Your task to perform on an android device: Go to network settings Image 0: 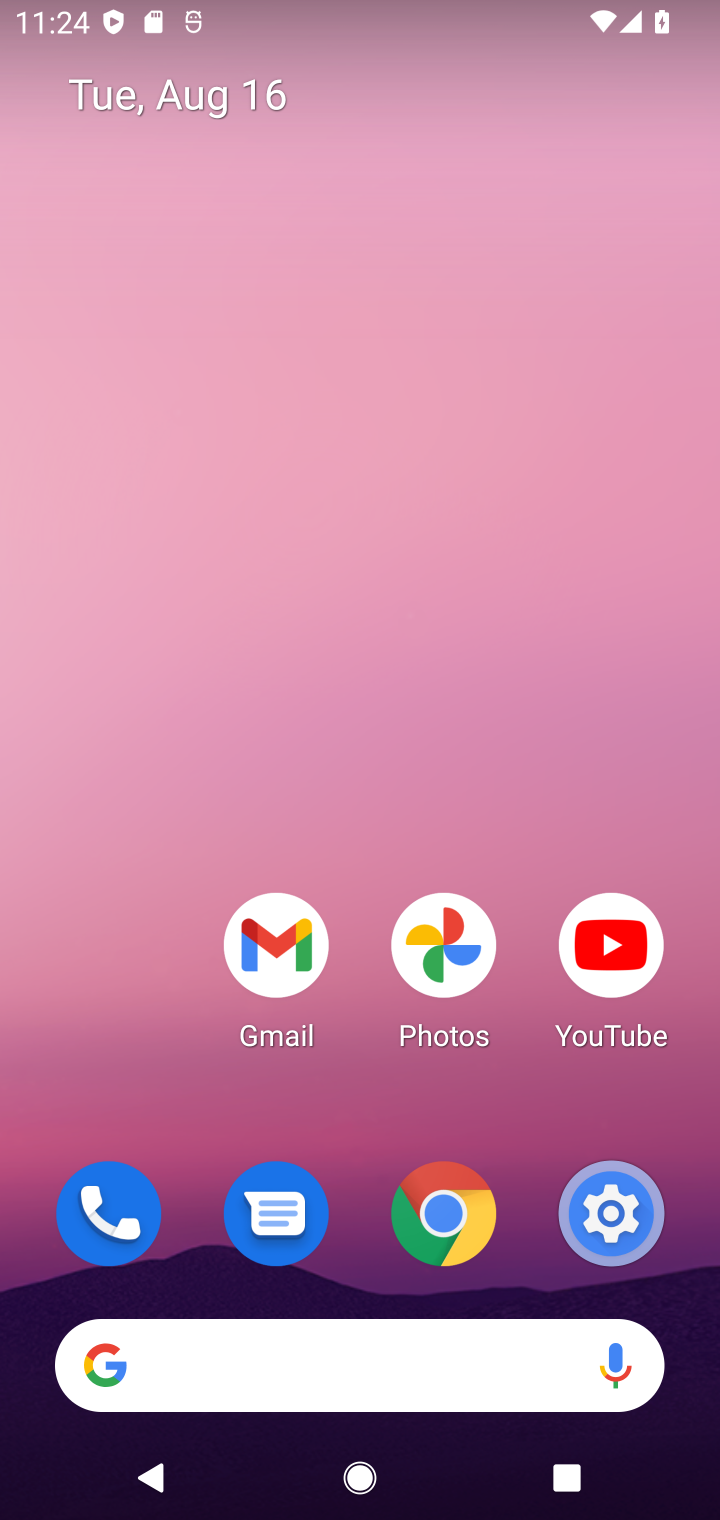
Step 0: click (495, 150)
Your task to perform on an android device: Go to network settings Image 1: 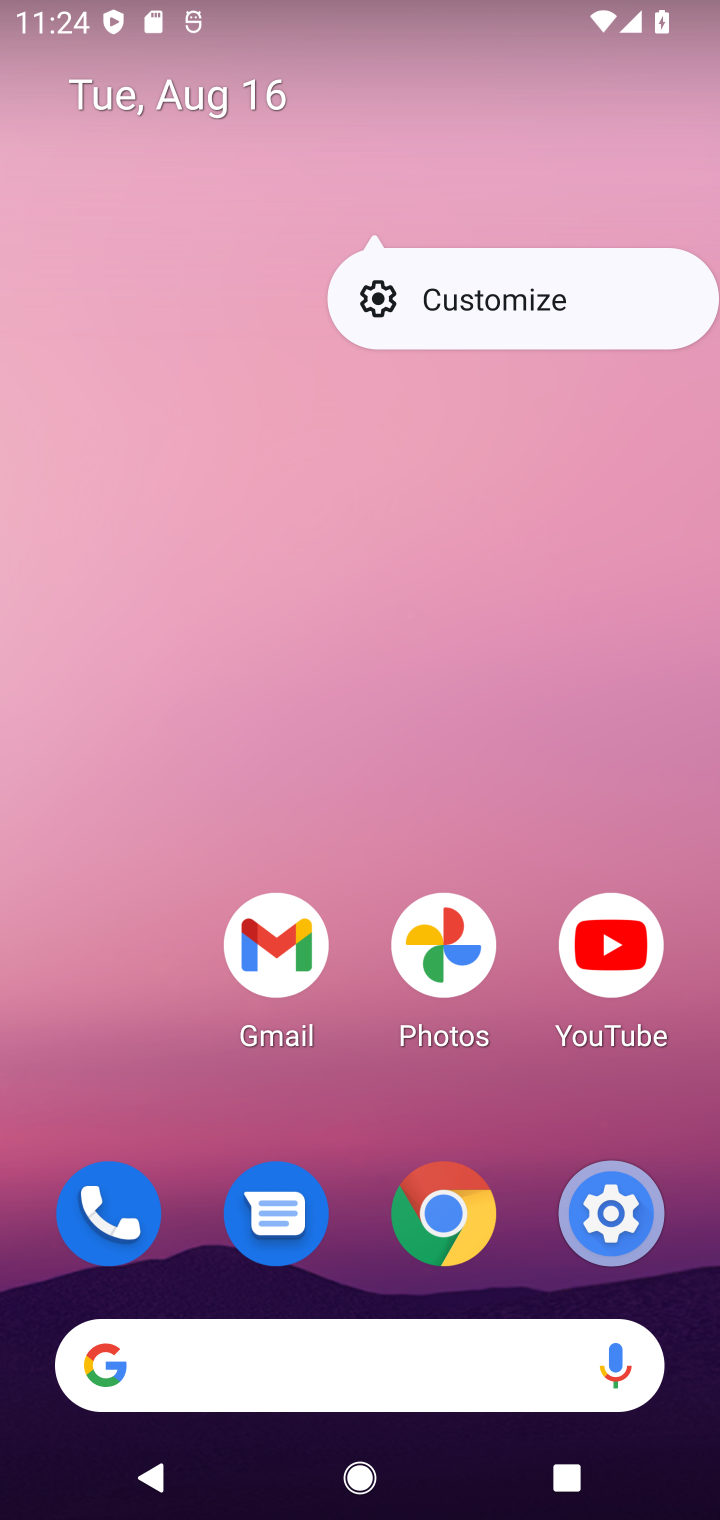
Step 1: drag from (387, 937) to (92, 18)
Your task to perform on an android device: Go to network settings Image 2: 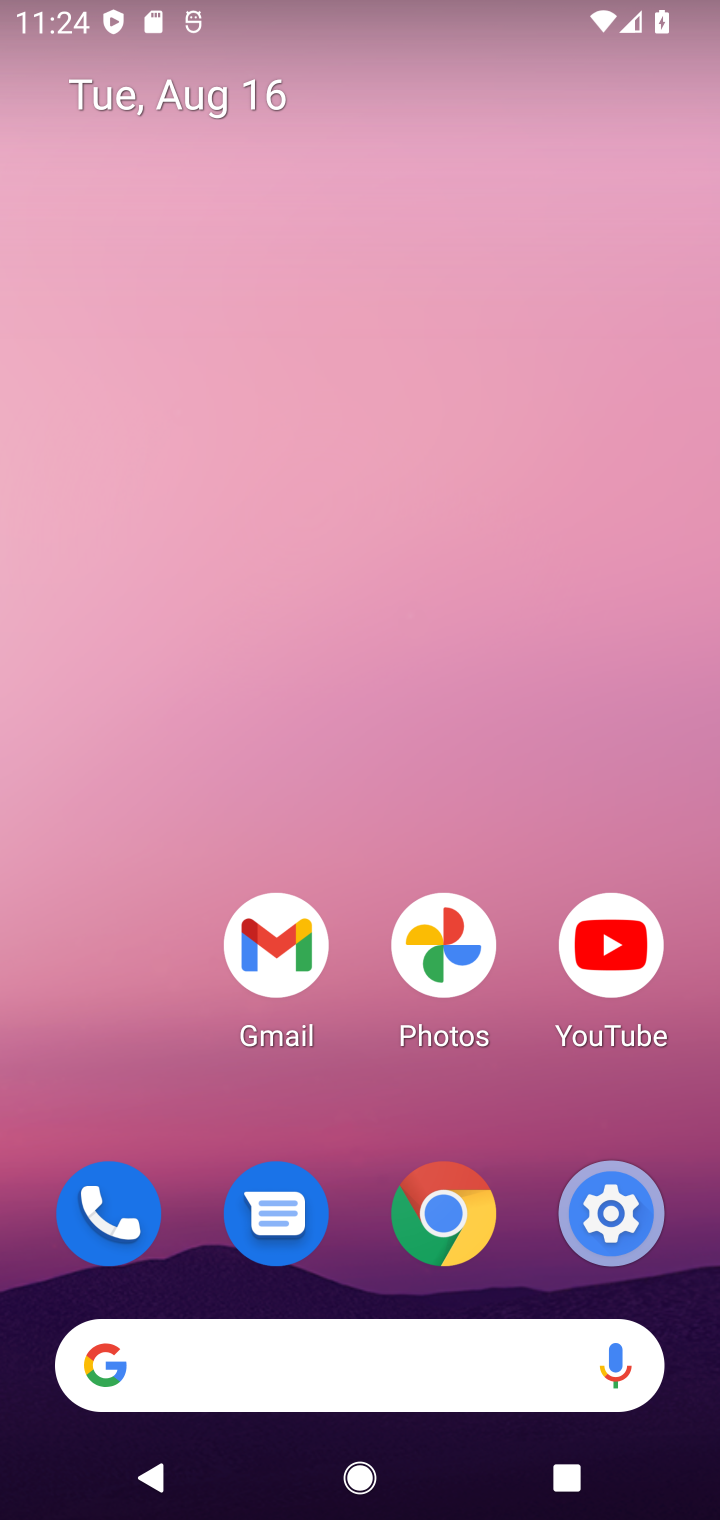
Step 2: drag from (166, 1087) to (340, 35)
Your task to perform on an android device: Go to network settings Image 3: 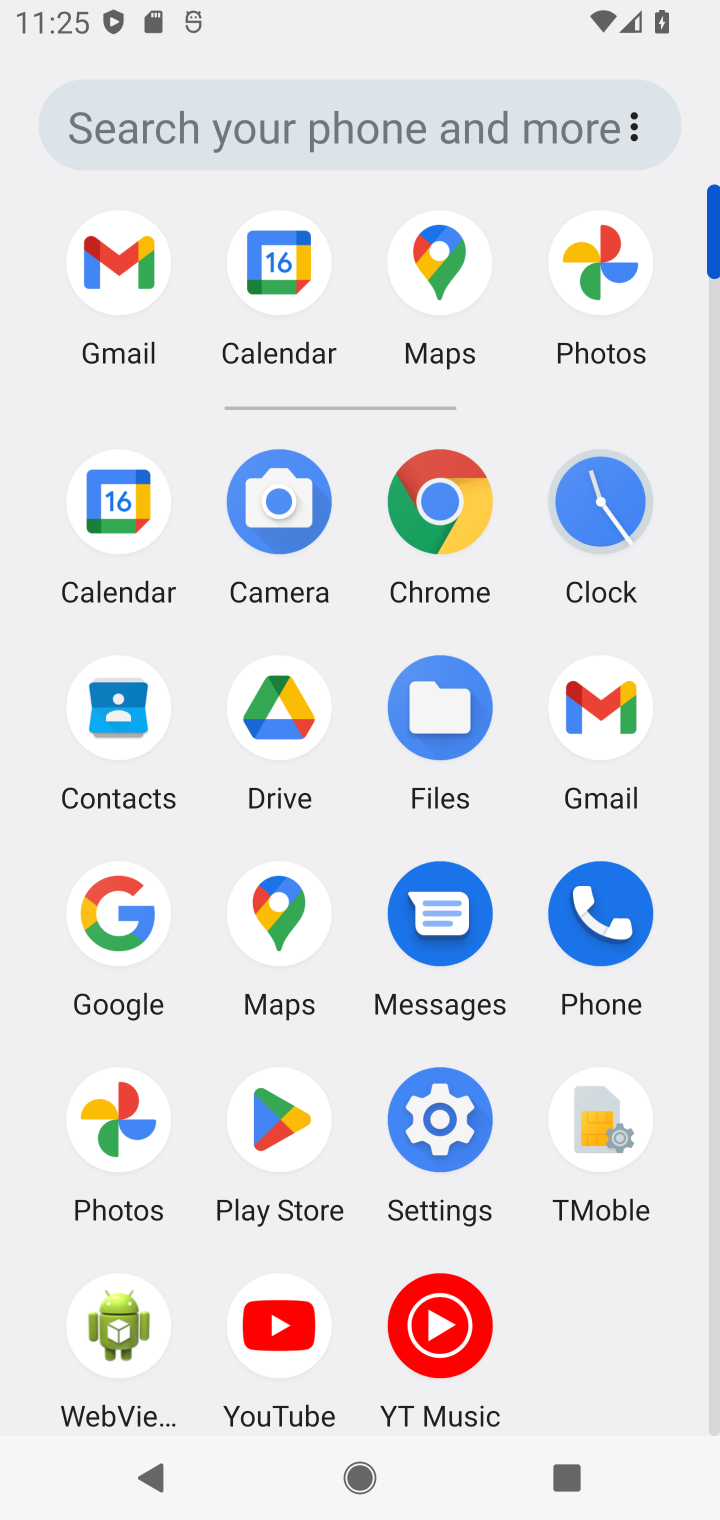
Step 3: click (470, 1079)
Your task to perform on an android device: Go to network settings Image 4: 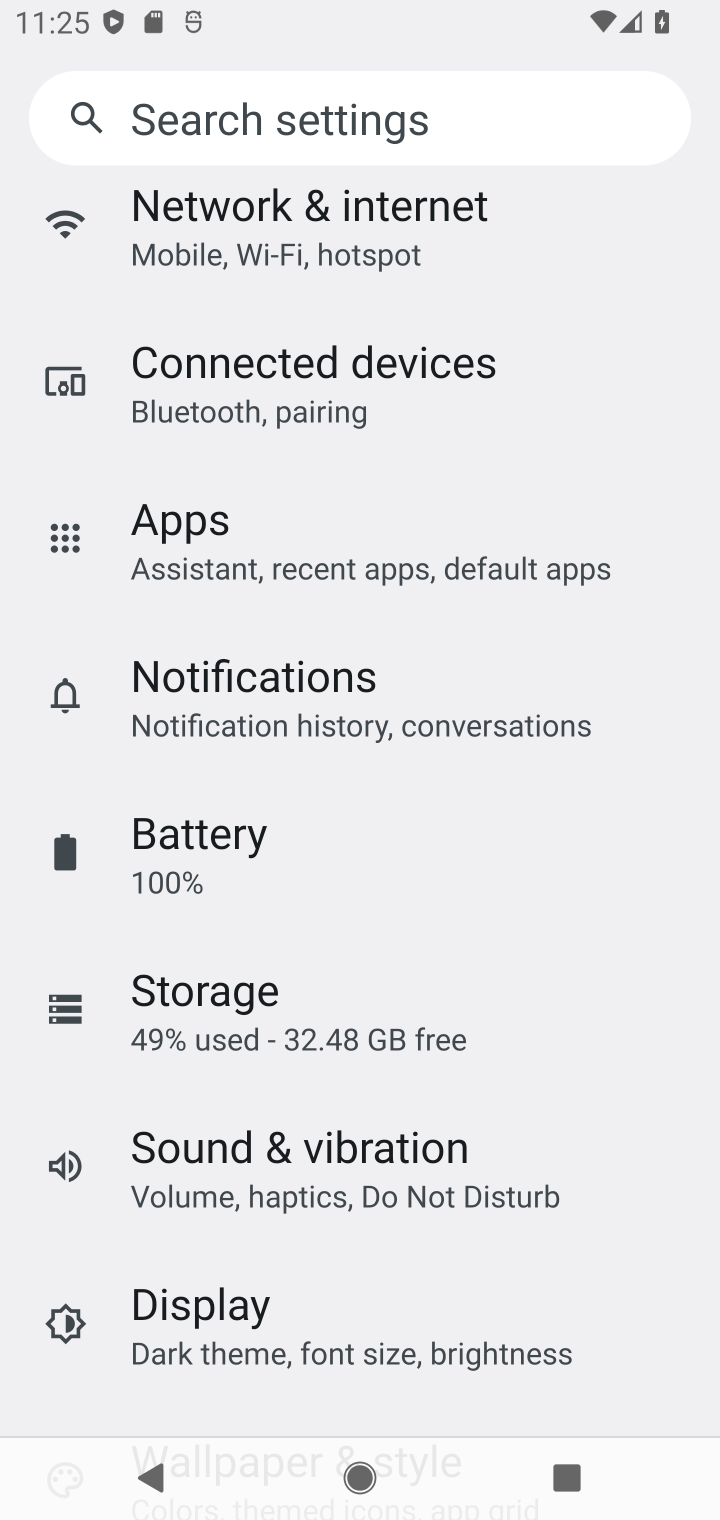
Step 4: click (332, 221)
Your task to perform on an android device: Go to network settings Image 5: 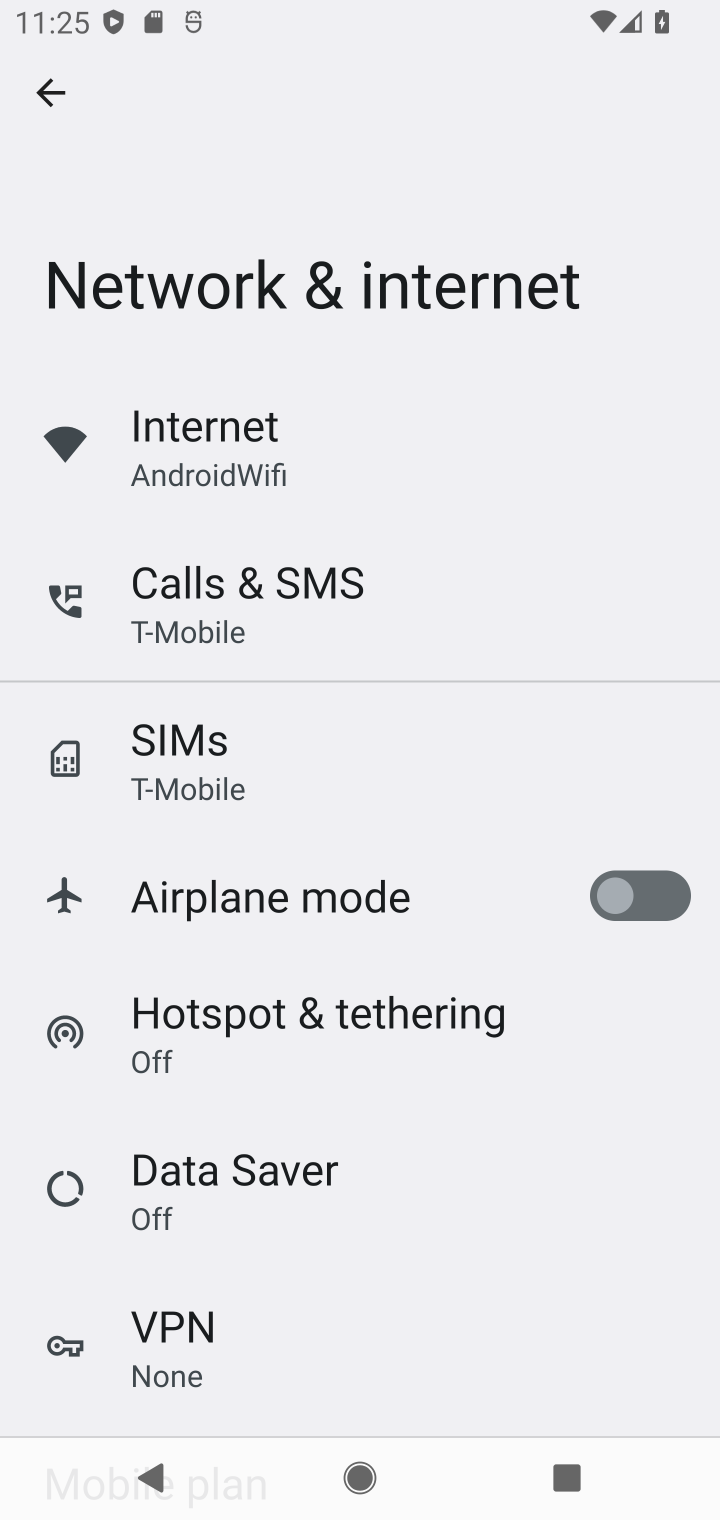
Step 5: task complete